Your task to perform on an android device: Open Yahoo.com Image 0: 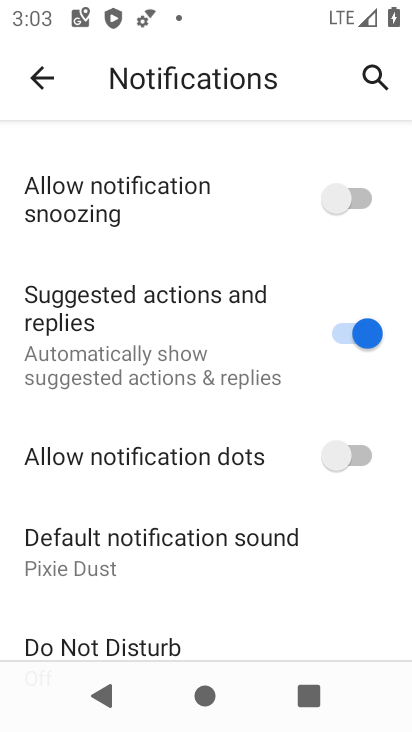
Step 0: press home button
Your task to perform on an android device: Open Yahoo.com Image 1: 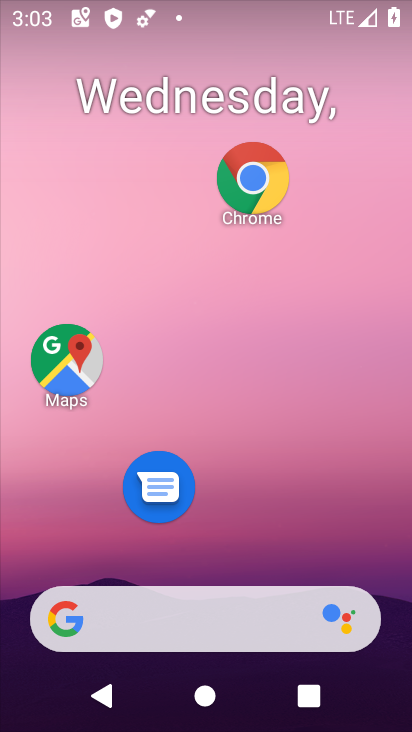
Step 1: click (251, 169)
Your task to perform on an android device: Open Yahoo.com Image 2: 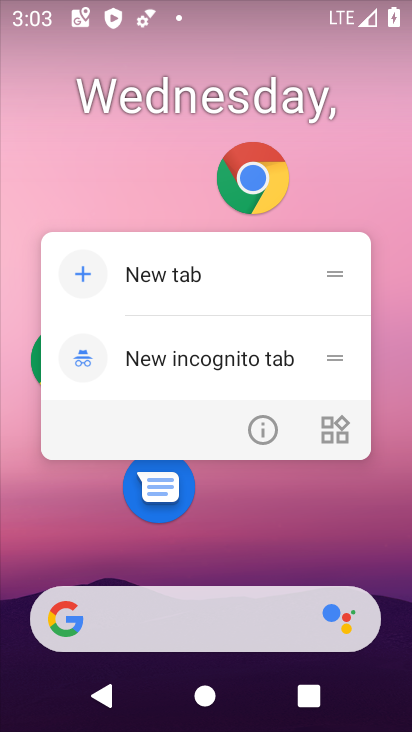
Step 2: click (254, 184)
Your task to perform on an android device: Open Yahoo.com Image 3: 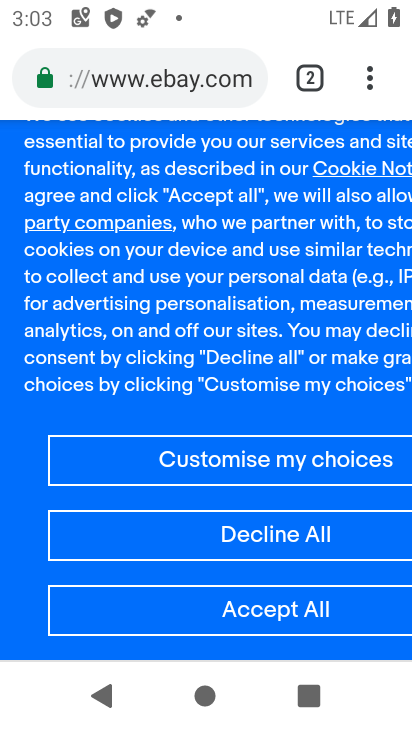
Step 3: click (209, 78)
Your task to perform on an android device: Open Yahoo.com Image 4: 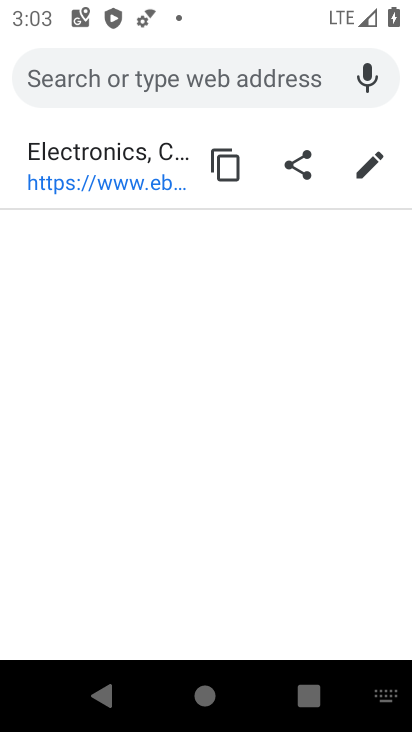
Step 4: type "yahoo.com"
Your task to perform on an android device: Open Yahoo.com Image 5: 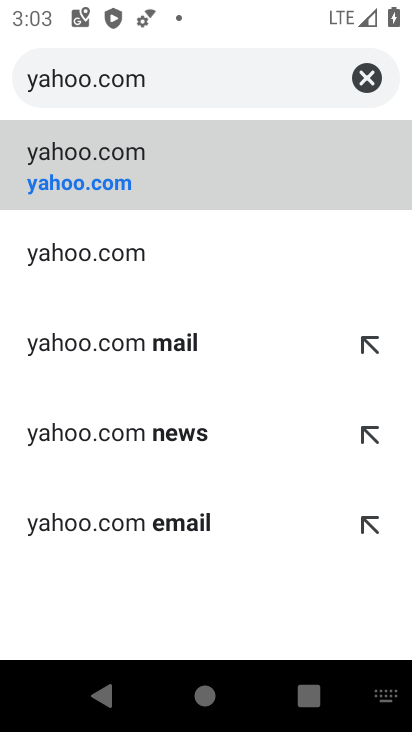
Step 5: click (127, 157)
Your task to perform on an android device: Open Yahoo.com Image 6: 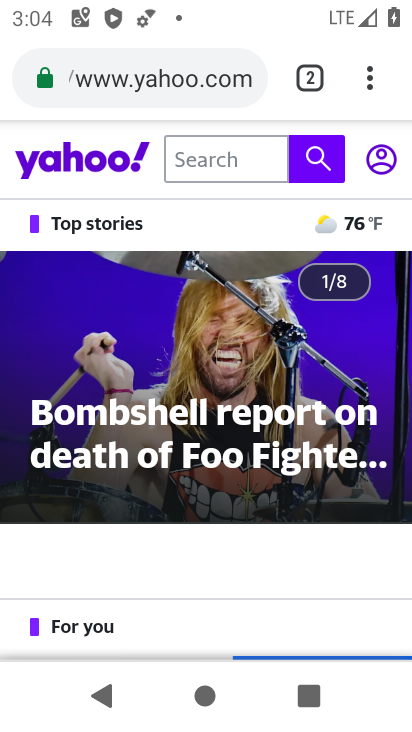
Step 6: task complete